Your task to perform on an android device: turn on translation in the chrome app Image 0: 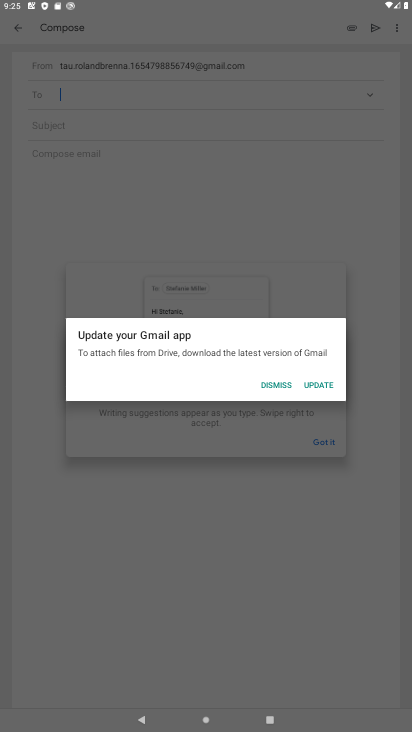
Step 0: press home button
Your task to perform on an android device: turn on translation in the chrome app Image 1: 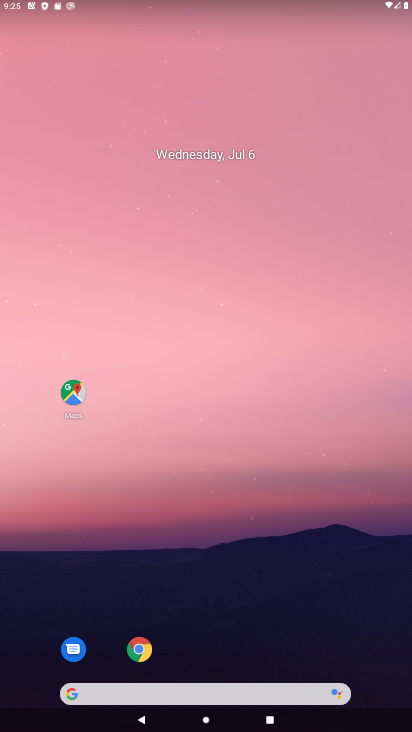
Step 1: click (140, 649)
Your task to perform on an android device: turn on translation in the chrome app Image 2: 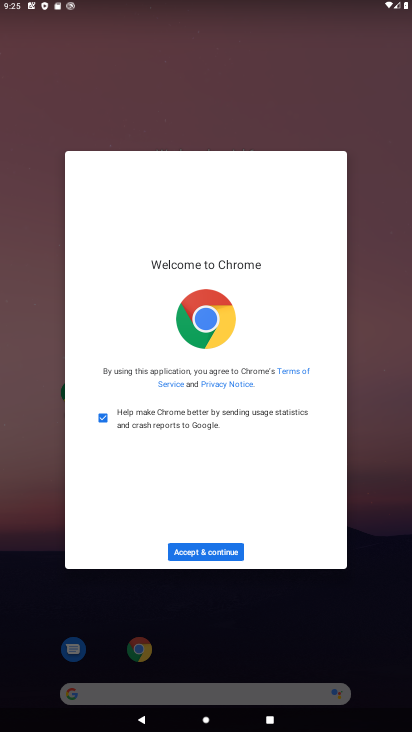
Step 2: click (222, 556)
Your task to perform on an android device: turn on translation in the chrome app Image 3: 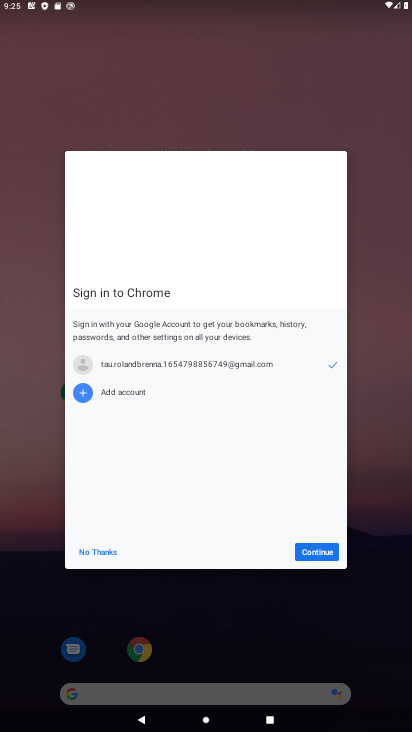
Step 3: click (313, 554)
Your task to perform on an android device: turn on translation in the chrome app Image 4: 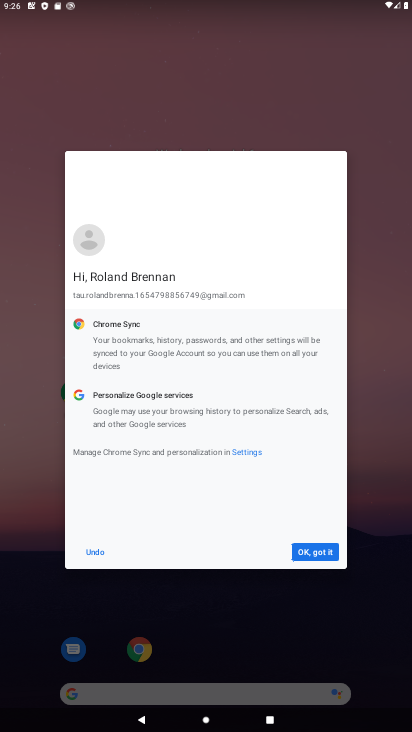
Step 4: click (313, 554)
Your task to perform on an android device: turn on translation in the chrome app Image 5: 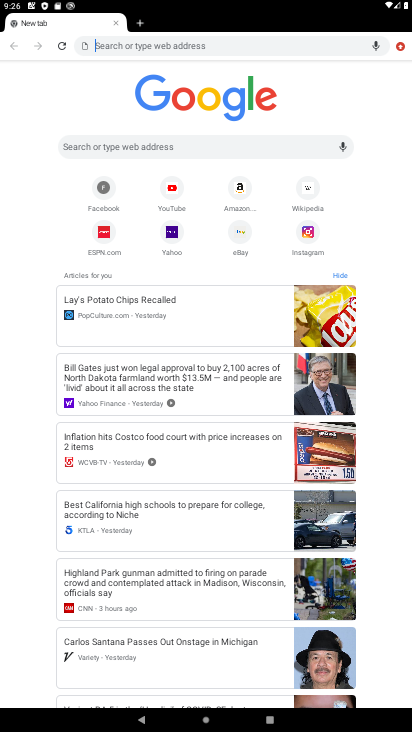
Step 5: click (402, 45)
Your task to perform on an android device: turn on translation in the chrome app Image 6: 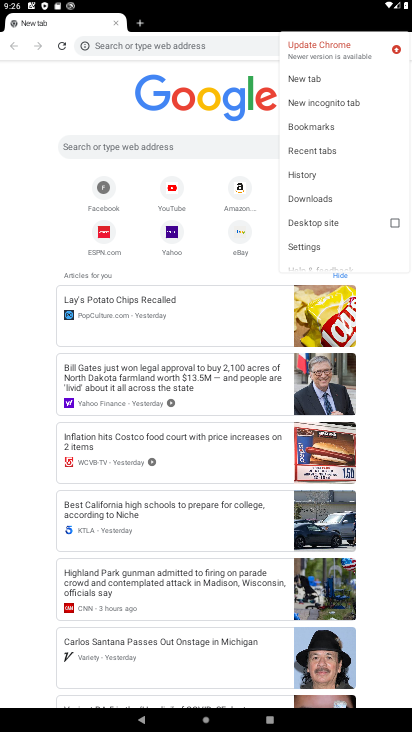
Step 6: click (310, 245)
Your task to perform on an android device: turn on translation in the chrome app Image 7: 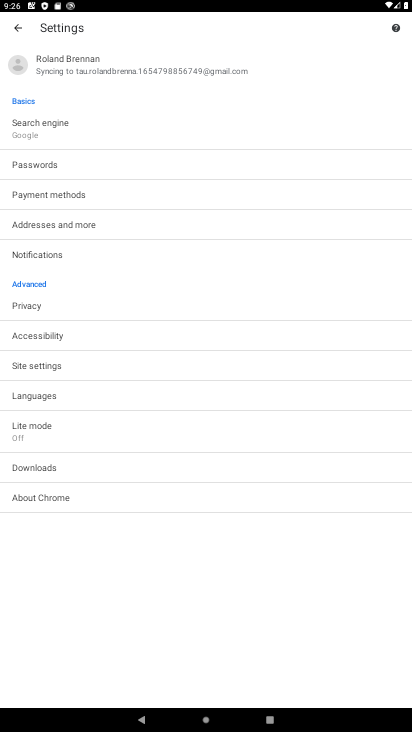
Step 7: click (38, 394)
Your task to perform on an android device: turn on translation in the chrome app Image 8: 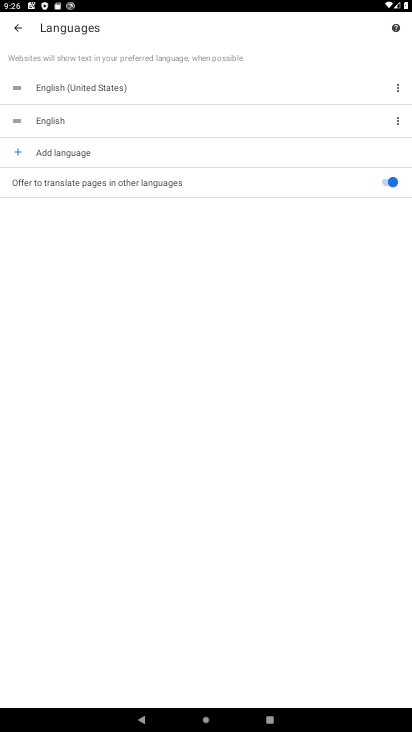
Step 8: task complete